Your task to perform on an android device: Open Google Maps Image 0: 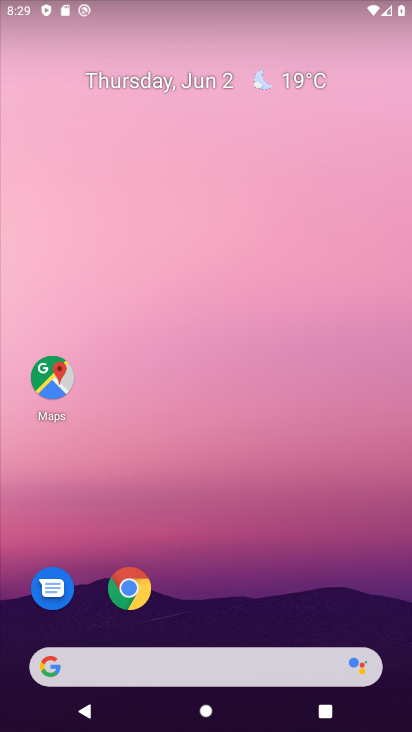
Step 0: click (57, 377)
Your task to perform on an android device: Open Google Maps Image 1: 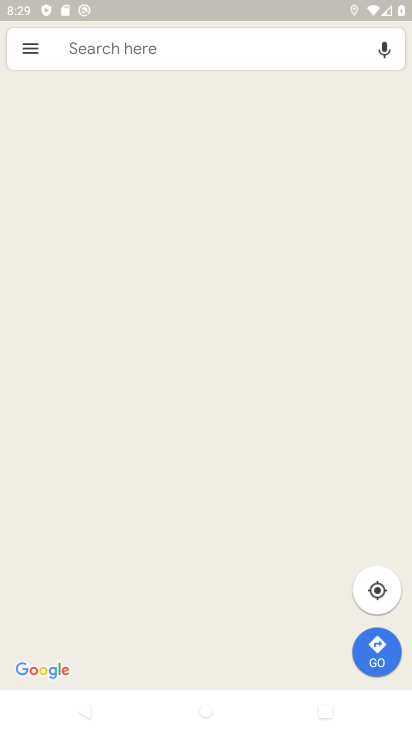
Step 1: task complete